Your task to perform on an android device: Search for sushi restaurants on Maps Image 0: 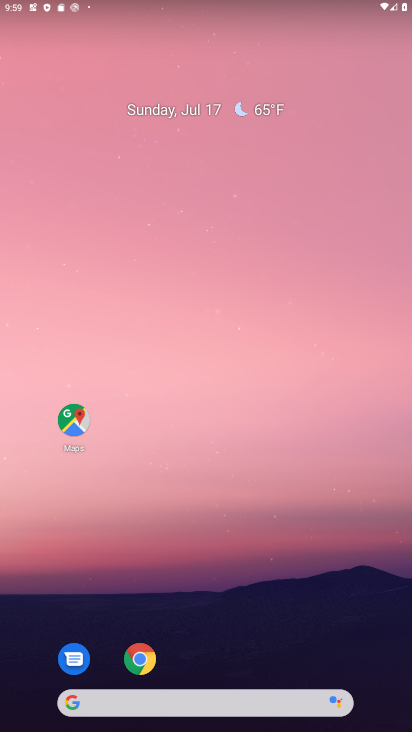
Step 0: click (69, 419)
Your task to perform on an android device: Search for sushi restaurants on Maps Image 1: 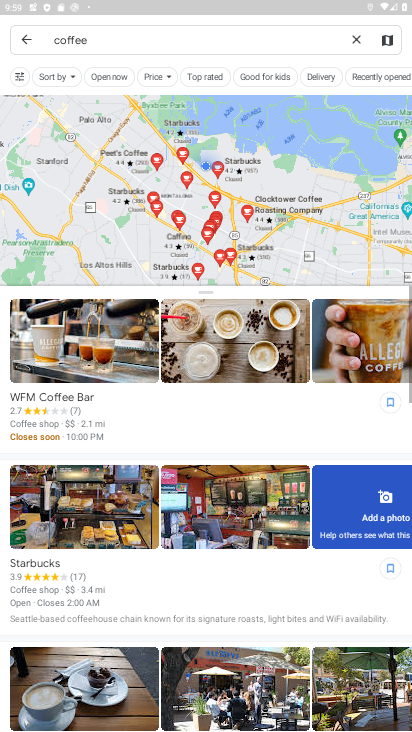
Step 1: click (363, 45)
Your task to perform on an android device: Search for sushi restaurants on Maps Image 2: 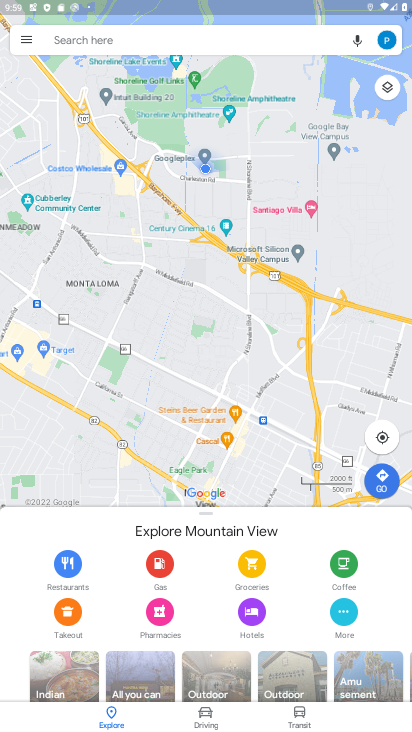
Step 2: click (229, 41)
Your task to perform on an android device: Search for sushi restaurants on Maps Image 3: 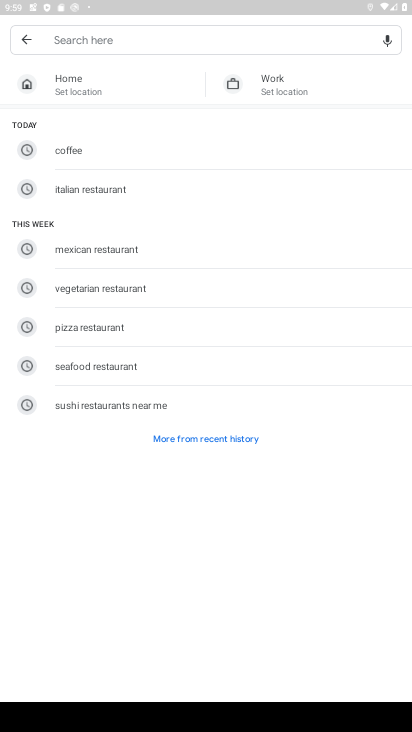
Step 3: click (134, 405)
Your task to perform on an android device: Search for sushi restaurants on Maps Image 4: 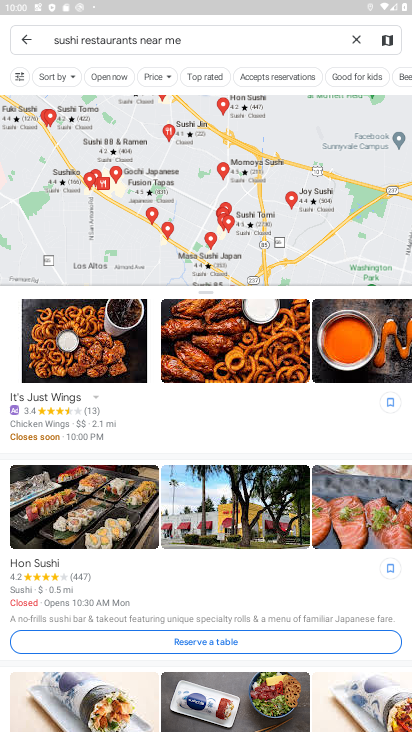
Step 4: task complete